Your task to perform on an android device: Go to privacy settings Image 0: 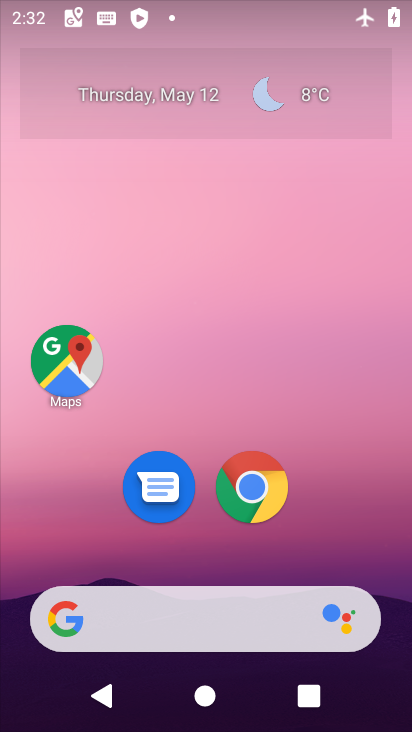
Step 0: drag from (324, 532) to (347, 159)
Your task to perform on an android device: Go to privacy settings Image 1: 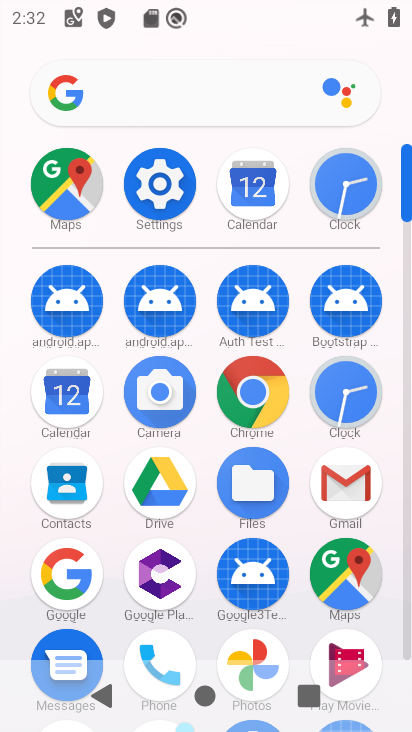
Step 1: click (158, 205)
Your task to perform on an android device: Go to privacy settings Image 2: 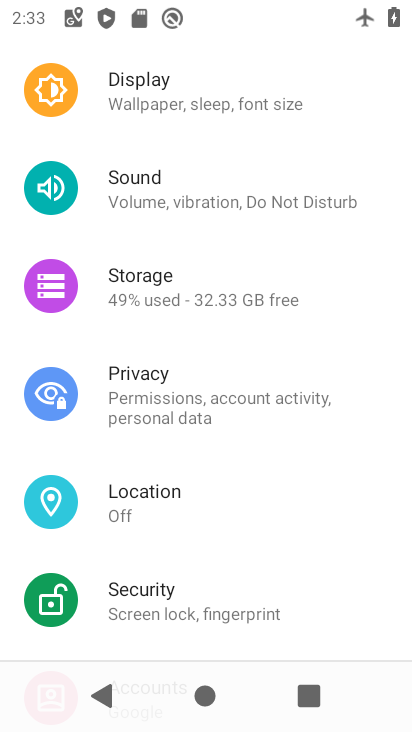
Step 2: click (155, 391)
Your task to perform on an android device: Go to privacy settings Image 3: 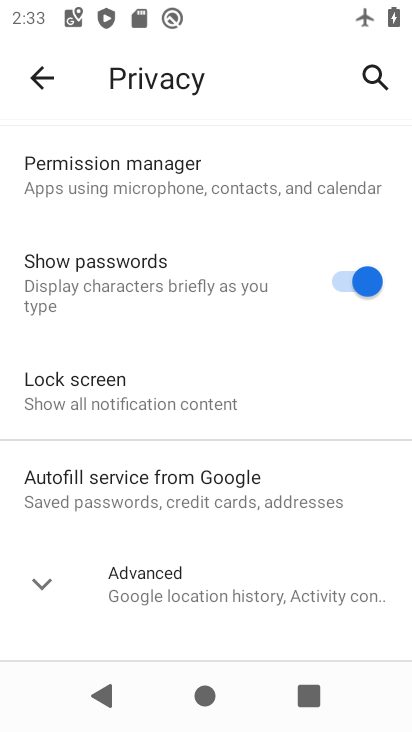
Step 3: task complete